Your task to perform on an android device: turn off data saver in the chrome app Image 0: 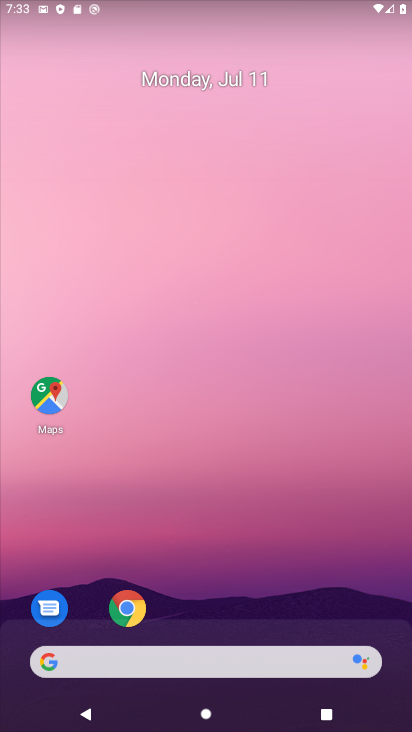
Step 0: click (133, 602)
Your task to perform on an android device: turn off data saver in the chrome app Image 1: 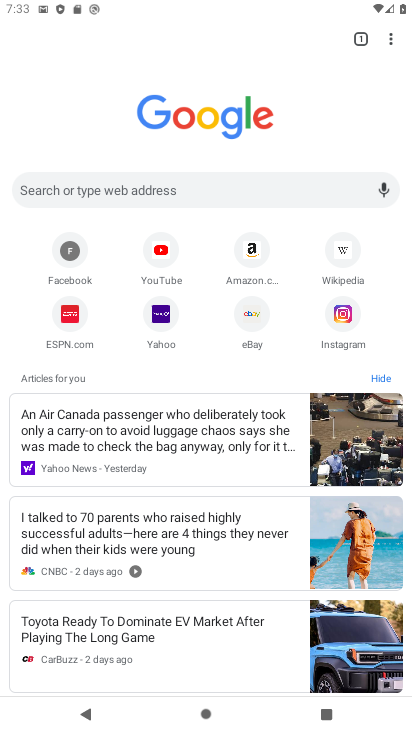
Step 1: click (388, 46)
Your task to perform on an android device: turn off data saver in the chrome app Image 2: 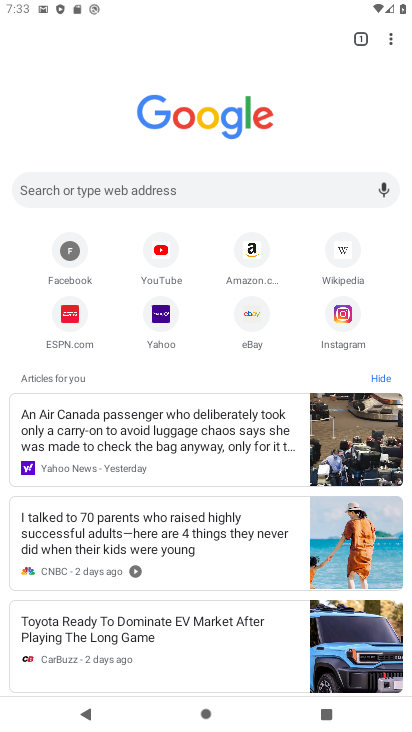
Step 2: click (391, 44)
Your task to perform on an android device: turn off data saver in the chrome app Image 3: 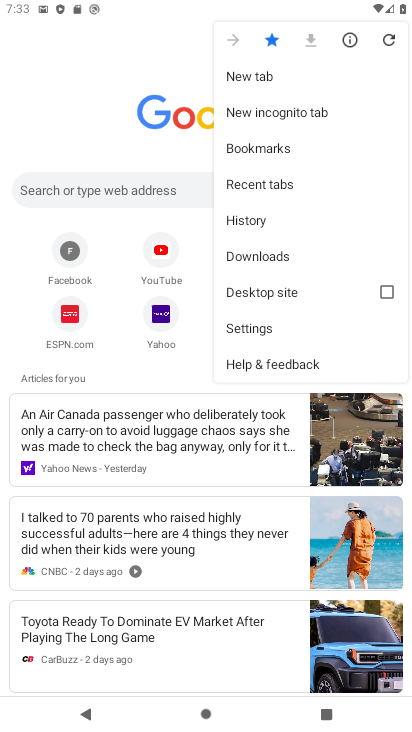
Step 3: click (266, 322)
Your task to perform on an android device: turn off data saver in the chrome app Image 4: 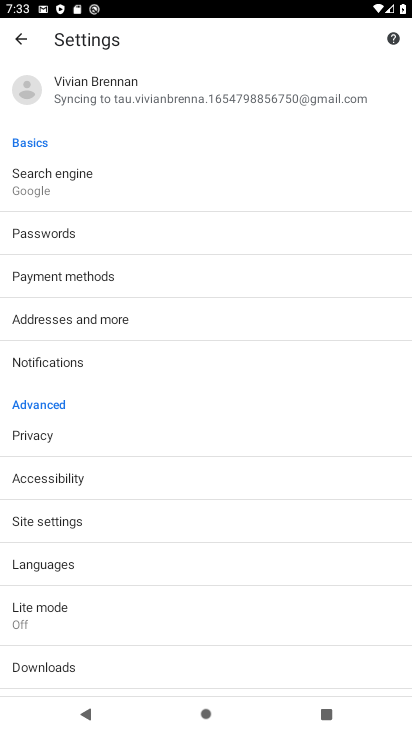
Step 4: click (137, 611)
Your task to perform on an android device: turn off data saver in the chrome app Image 5: 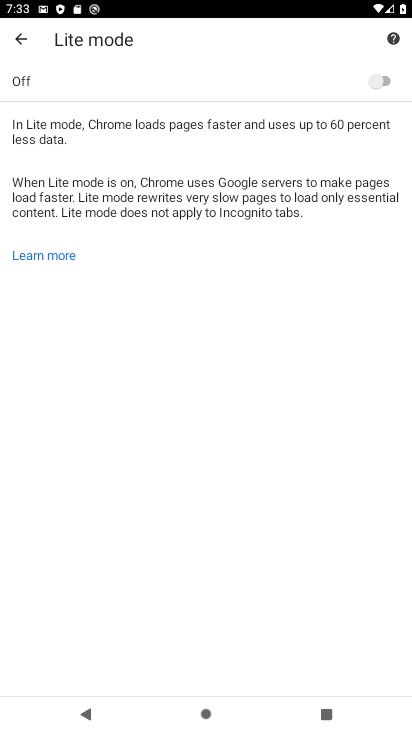
Step 5: click (372, 75)
Your task to perform on an android device: turn off data saver in the chrome app Image 6: 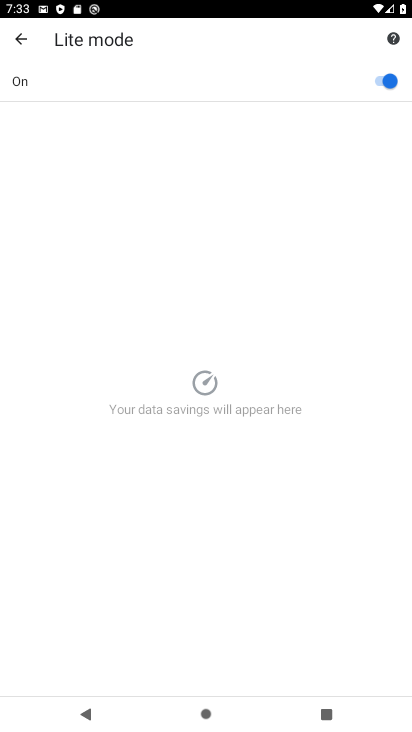
Step 6: task complete